Your task to perform on an android device: open app "ZOOM Cloud Meetings" Image 0: 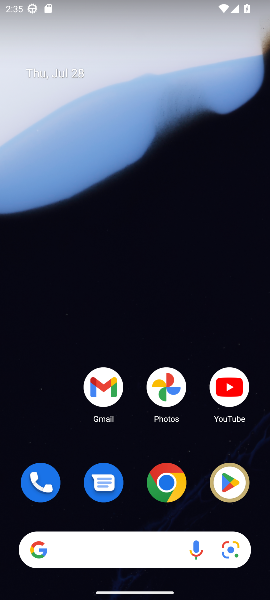
Step 0: click (225, 489)
Your task to perform on an android device: open app "ZOOM Cloud Meetings" Image 1: 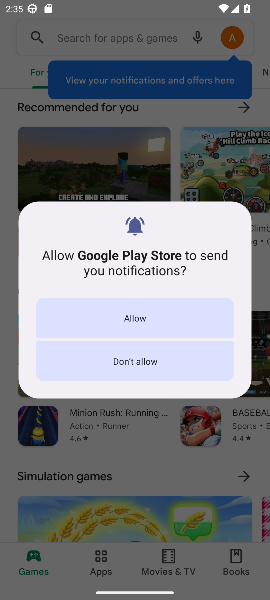
Step 1: click (114, 322)
Your task to perform on an android device: open app "ZOOM Cloud Meetings" Image 2: 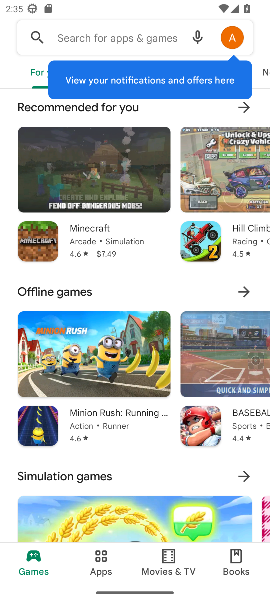
Step 2: click (83, 40)
Your task to perform on an android device: open app "ZOOM Cloud Meetings" Image 3: 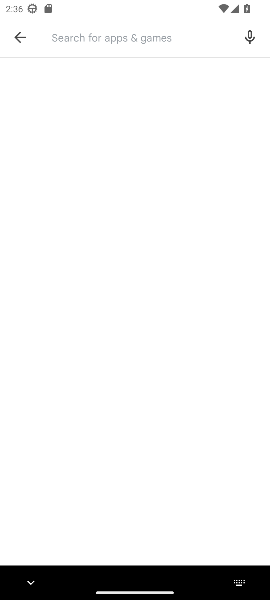
Step 3: type "ZOOM Cloud Meetings"
Your task to perform on an android device: open app "ZOOM Cloud Meetings" Image 4: 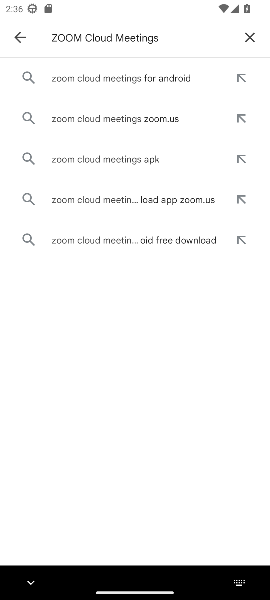
Step 4: click (103, 86)
Your task to perform on an android device: open app "ZOOM Cloud Meetings" Image 5: 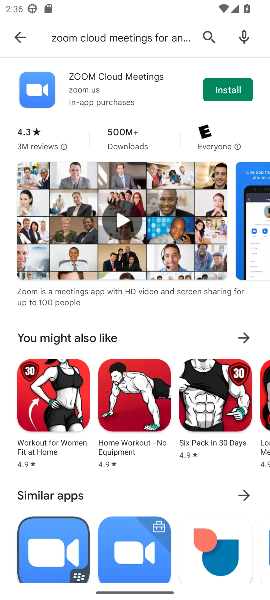
Step 5: click (236, 82)
Your task to perform on an android device: open app "ZOOM Cloud Meetings" Image 6: 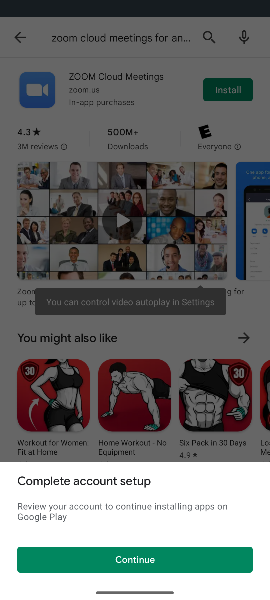
Step 6: click (139, 560)
Your task to perform on an android device: open app "ZOOM Cloud Meetings" Image 7: 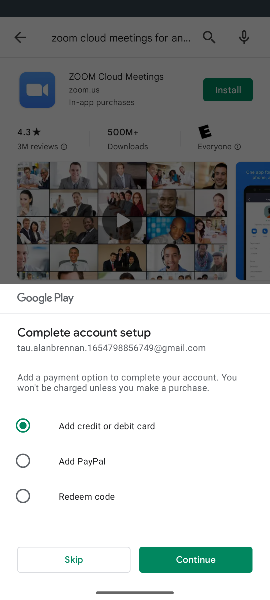
Step 7: click (118, 560)
Your task to perform on an android device: open app "ZOOM Cloud Meetings" Image 8: 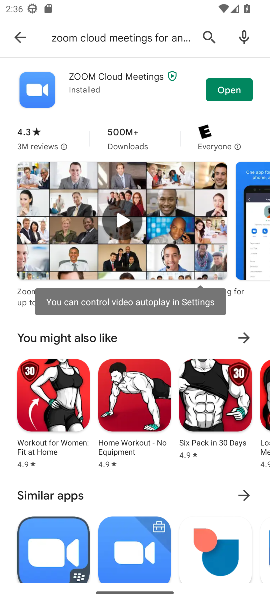
Step 8: click (224, 82)
Your task to perform on an android device: open app "ZOOM Cloud Meetings" Image 9: 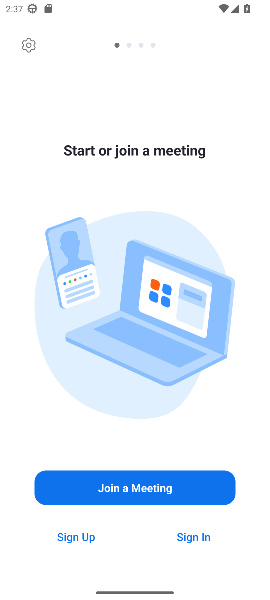
Step 9: task complete